Your task to perform on an android device: Open Reddit.com Image 0: 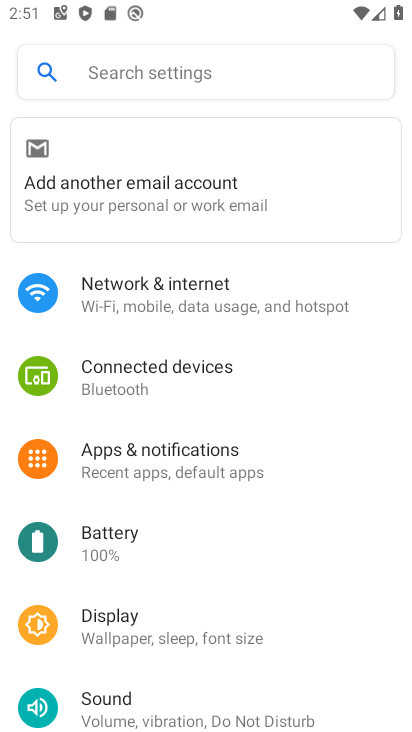
Step 0: press home button
Your task to perform on an android device: Open Reddit.com Image 1: 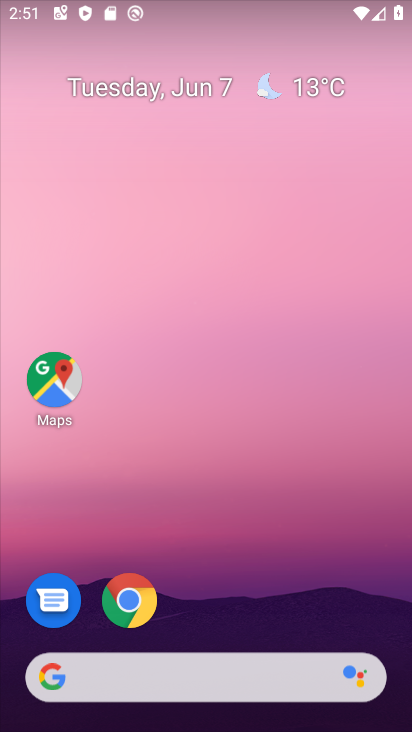
Step 1: click (124, 611)
Your task to perform on an android device: Open Reddit.com Image 2: 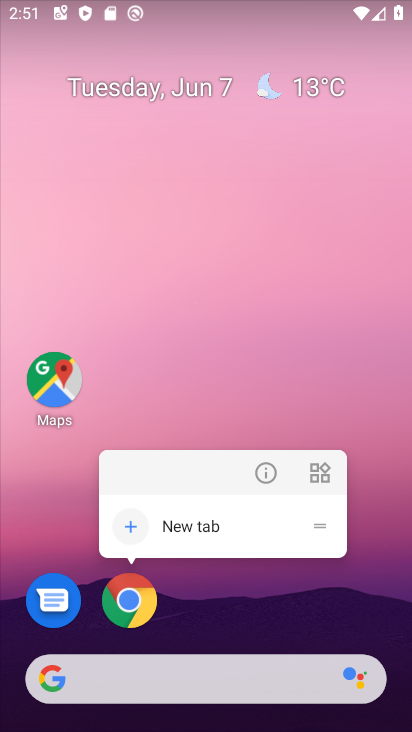
Step 2: click (132, 597)
Your task to perform on an android device: Open Reddit.com Image 3: 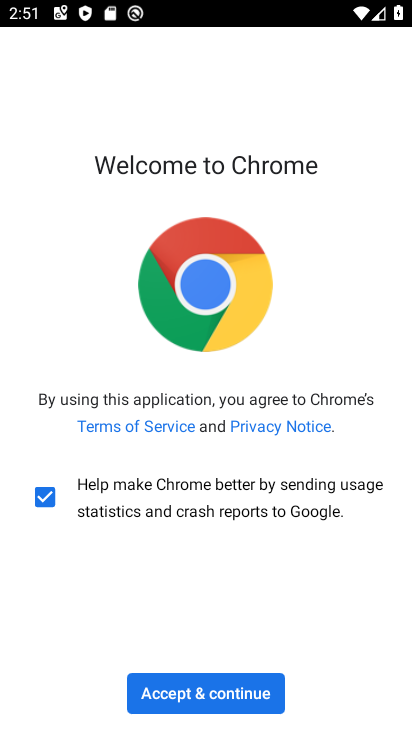
Step 3: click (204, 690)
Your task to perform on an android device: Open Reddit.com Image 4: 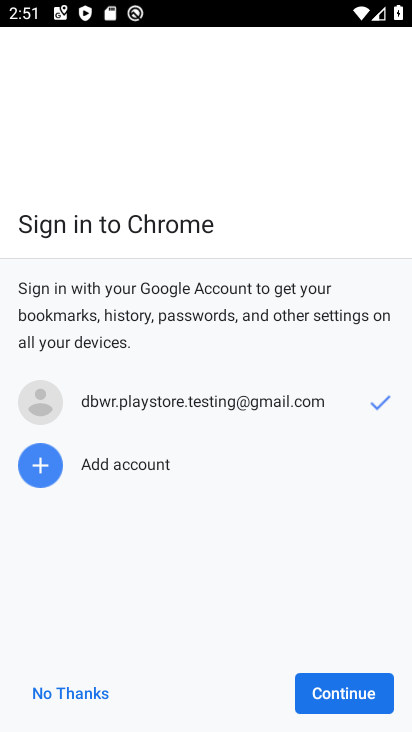
Step 4: click (371, 695)
Your task to perform on an android device: Open Reddit.com Image 5: 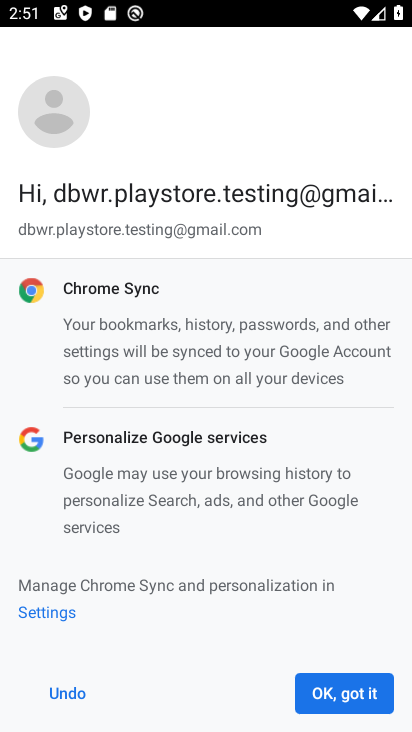
Step 5: click (345, 695)
Your task to perform on an android device: Open Reddit.com Image 6: 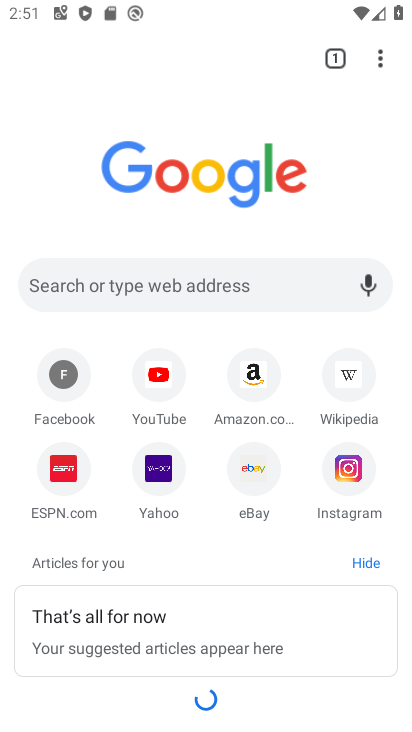
Step 6: click (201, 286)
Your task to perform on an android device: Open Reddit.com Image 7: 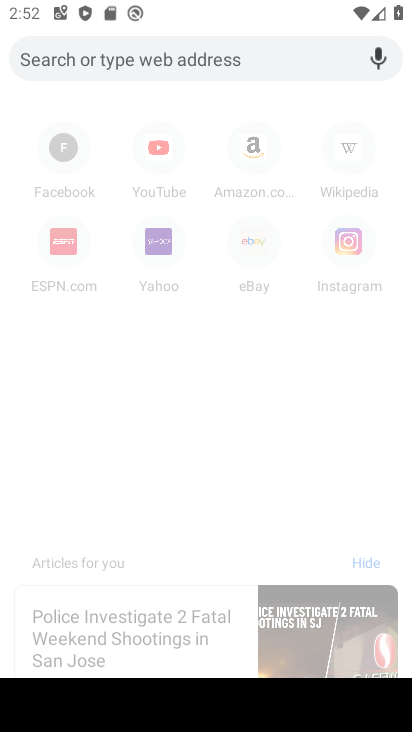
Step 7: type "www.reddit.com"
Your task to perform on an android device: Open Reddit.com Image 8: 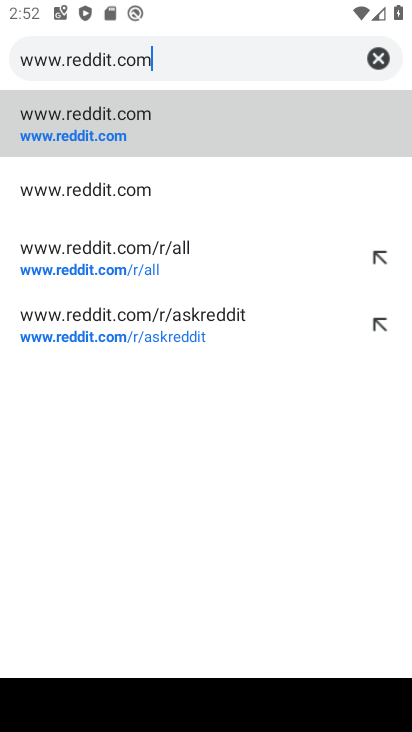
Step 8: click (87, 142)
Your task to perform on an android device: Open Reddit.com Image 9: 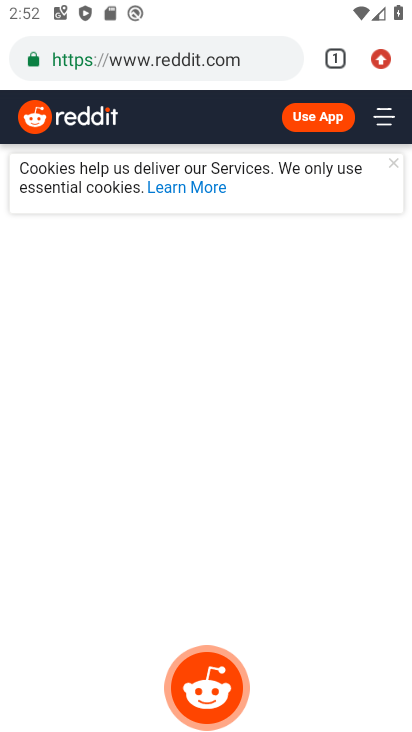
Step 9: task complete